Your task to perform on an android device: Go to CNN.com Image 0: 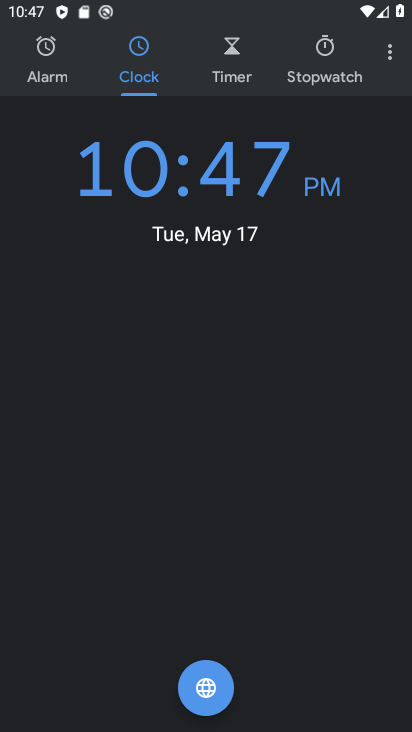
Step 0: press home button
Your task to perform on an android device: Go to CNN.com Image 1: 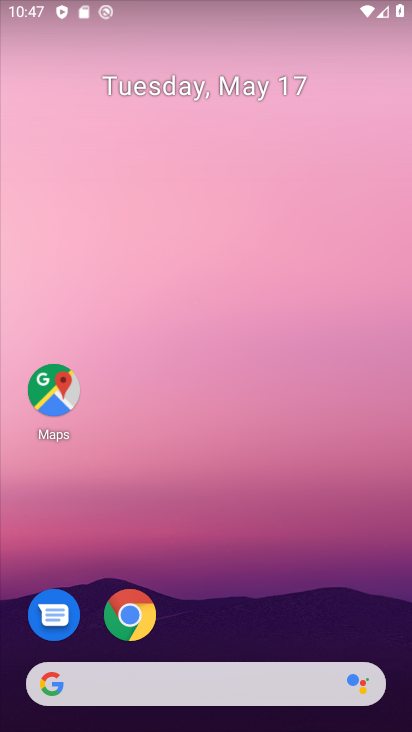
Step 1: click (122, 610)
Your task to perform on an android device: Go to CNN.com Image 2: 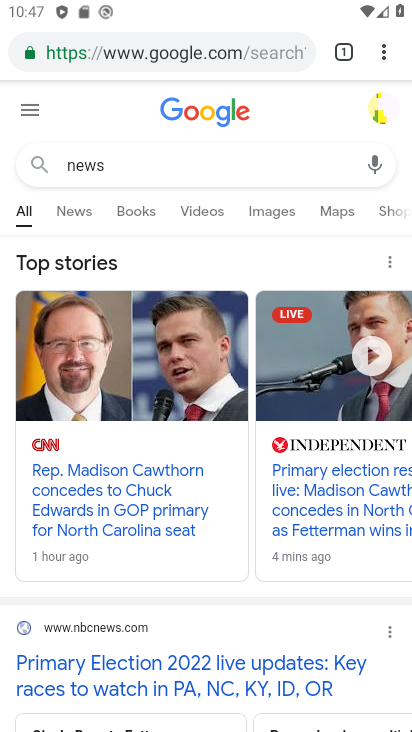
Step 2: click (88, 59)
Your task to perform on an android device: Go to CNN.com Image 3: 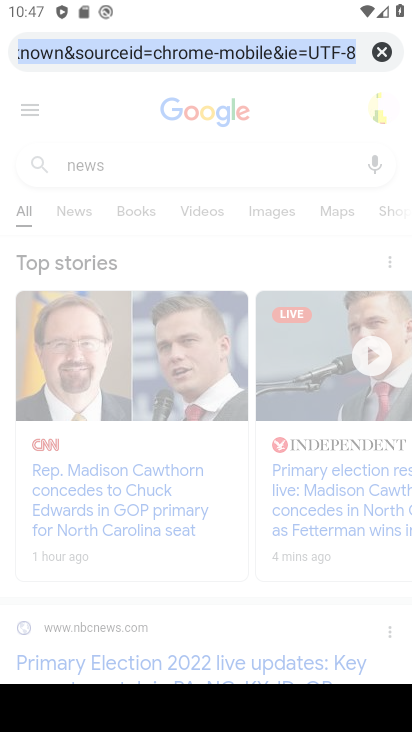
Step 3: type "CNN.com"
Your task to perform on an android device: Go to CNN.com Image 4: 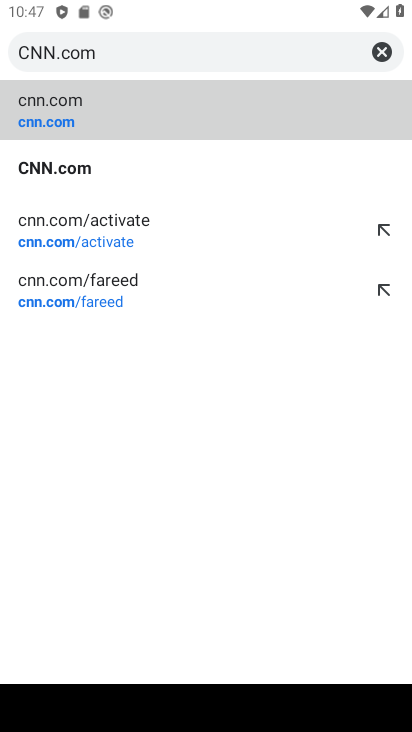
Step 4: click (49, 181)
Your task to perform on an android device: Go to CNN.com Image 5: 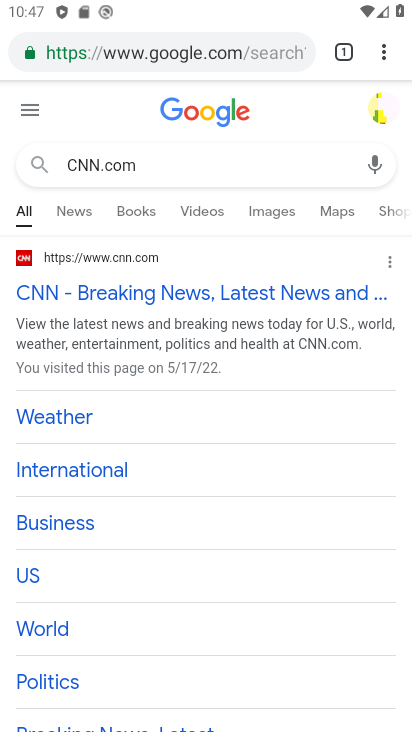
Step 5: task complete